Your task to perform on an android device: install app "Microsoft Excel" Image 0: 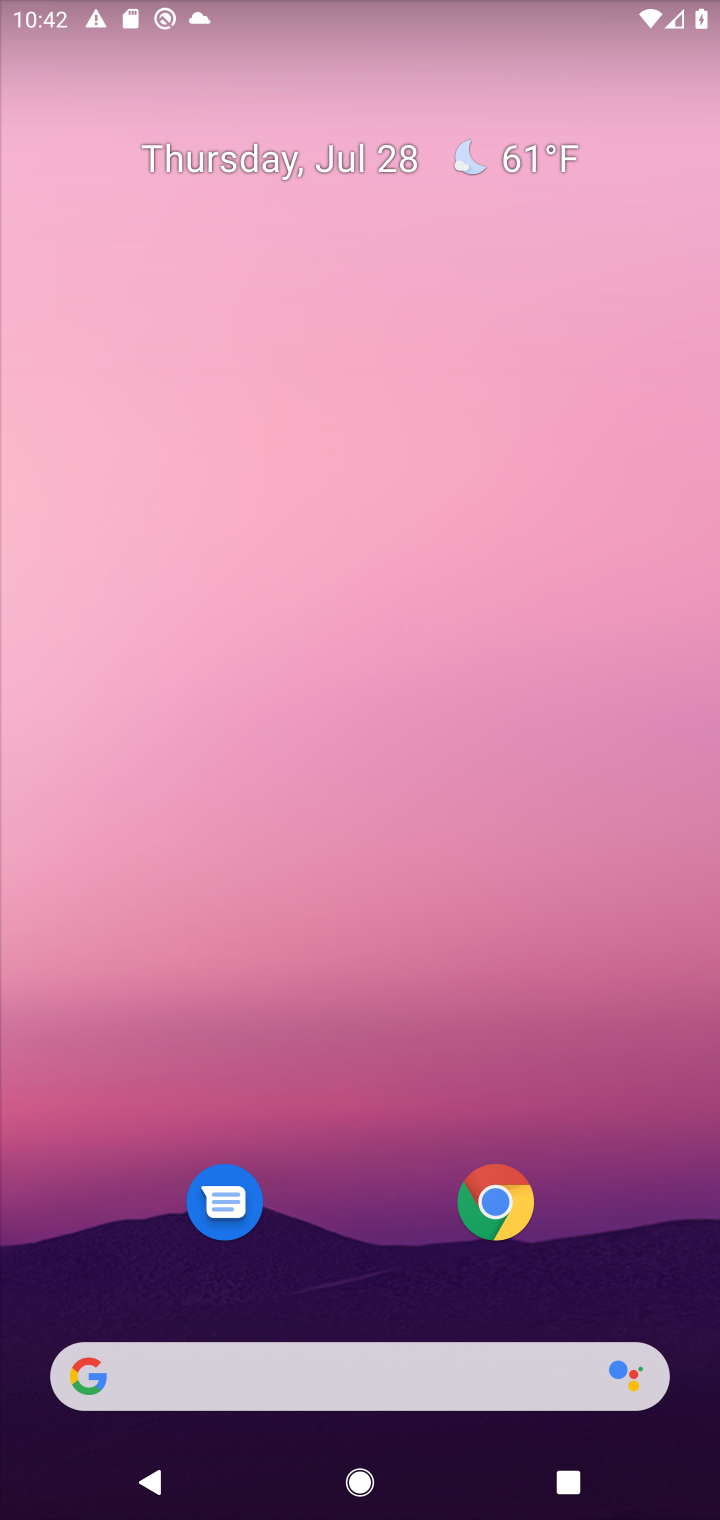
Step 0: click (365, 1367)
Your task to perform on an android device: install app "Microsoft Excel" Image 1: 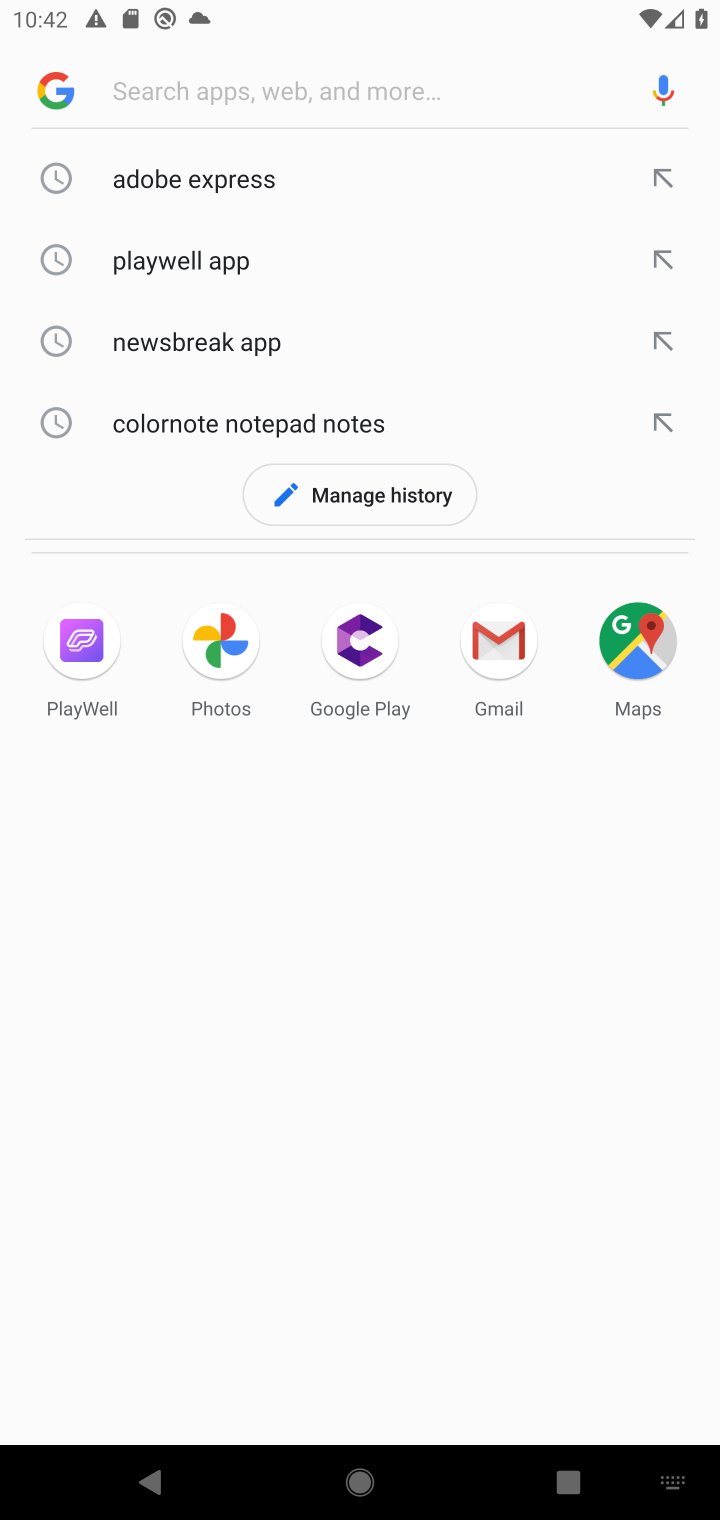
Step 1: type "micro"
Your task to perform on an android device: install app "Microsoft Excel" Image 2: 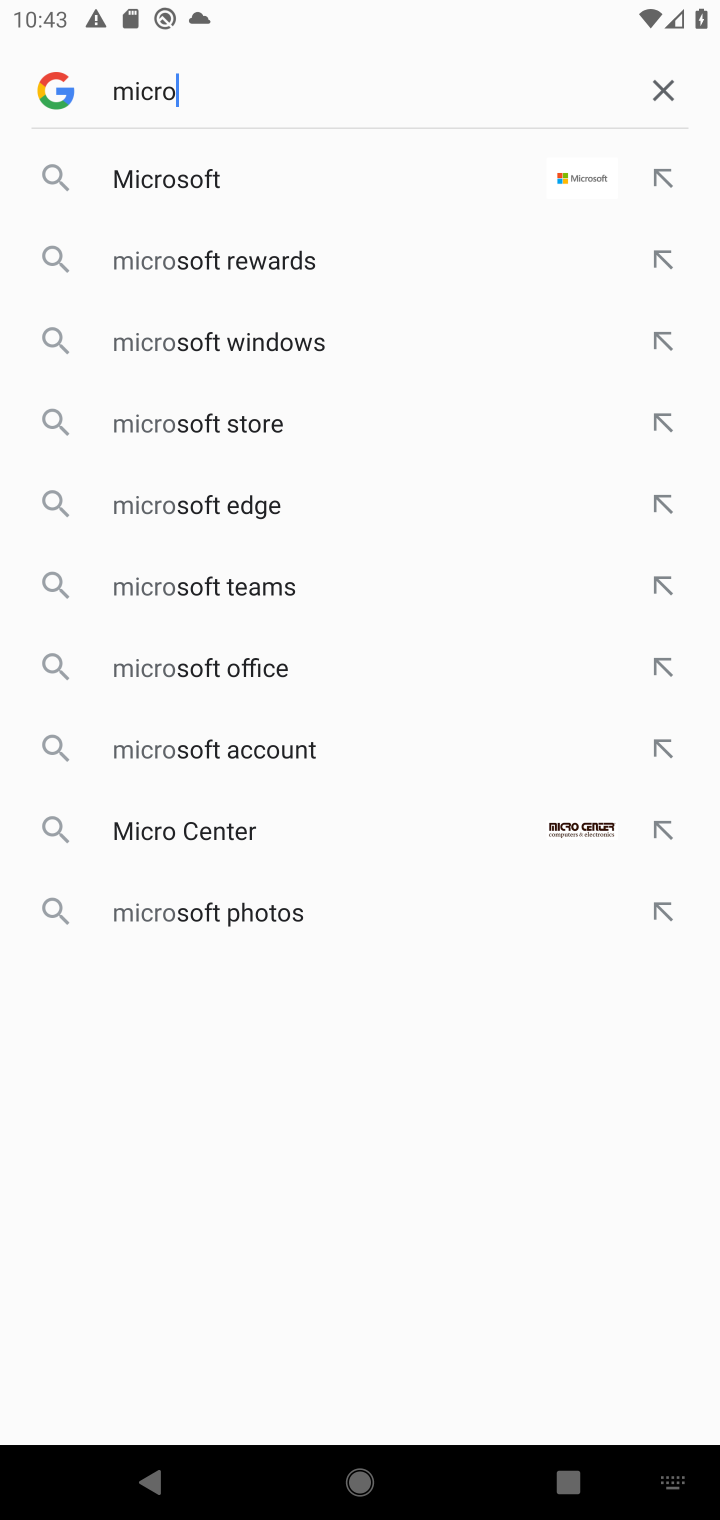
Step 2: type " excel"
Your task to perform on an android device: install app "Microsoft Excel" Image 3: 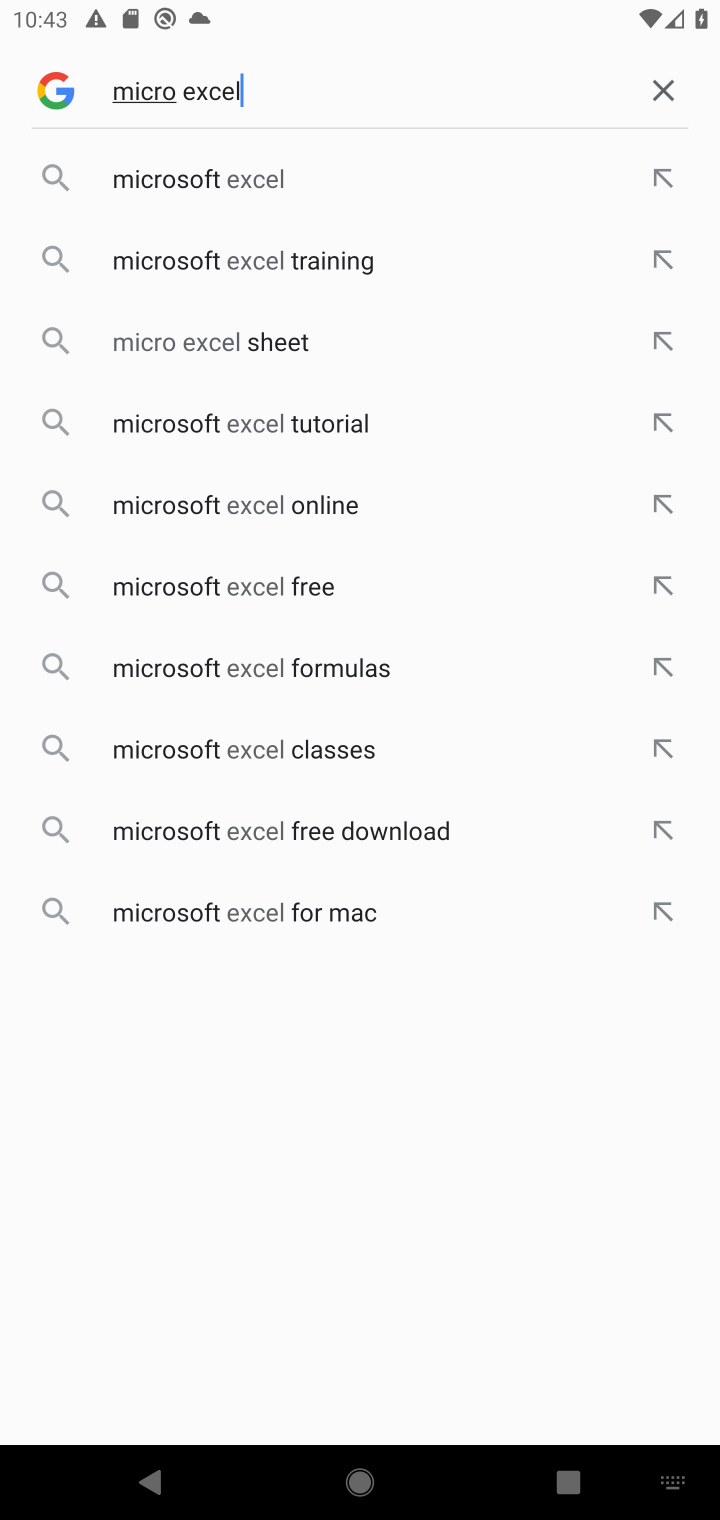
Step 3: click (369, 182)
Your task to perform on an android device: install app "Microsoft Excel" Image 4: 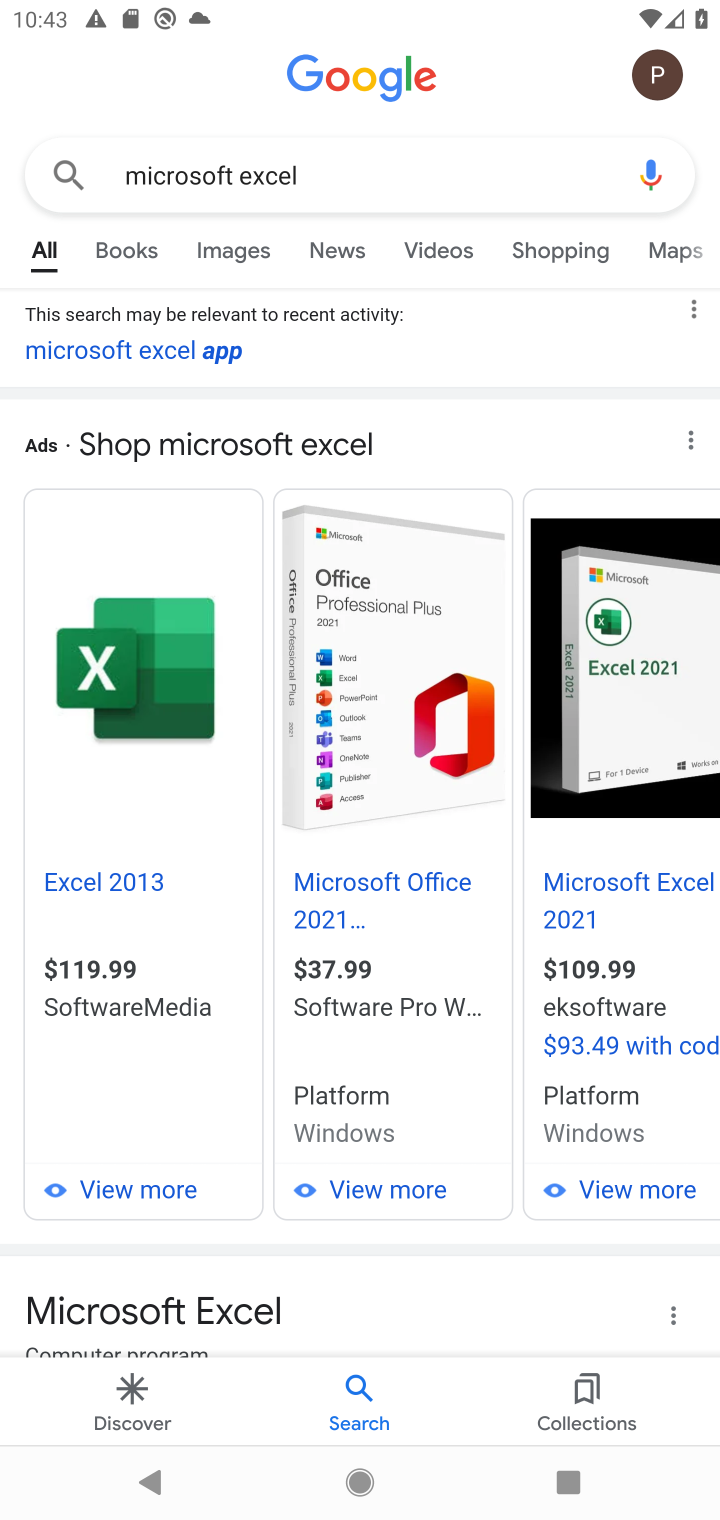
Step 4: drag from (157, 1145) to (142, 238)
Your task to perform on an android device: install app "Microsoft Excel" Image 5: 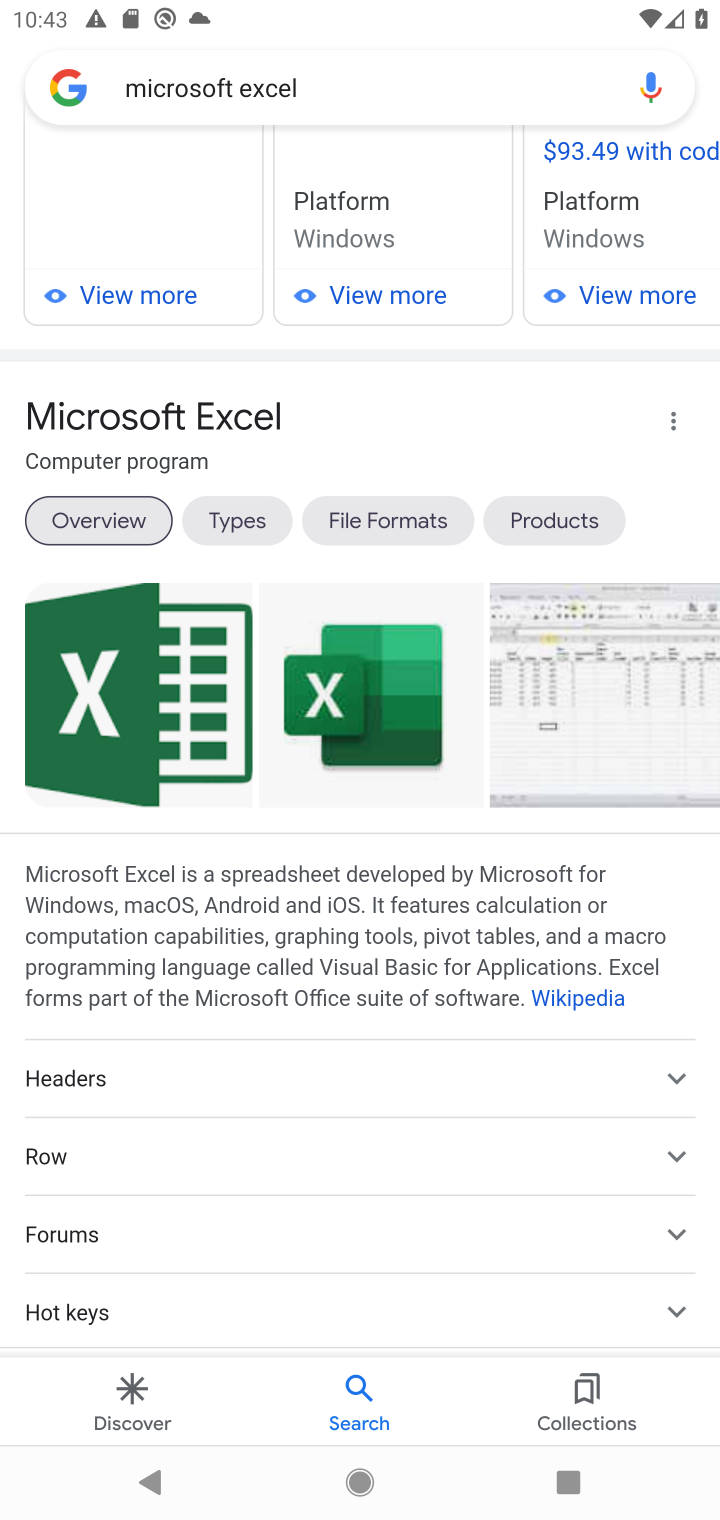
Step 5: drag from (396, 1157) to (401, 101)
Your task to perform on an android device: install app "Microsoft Excel" Image 6: 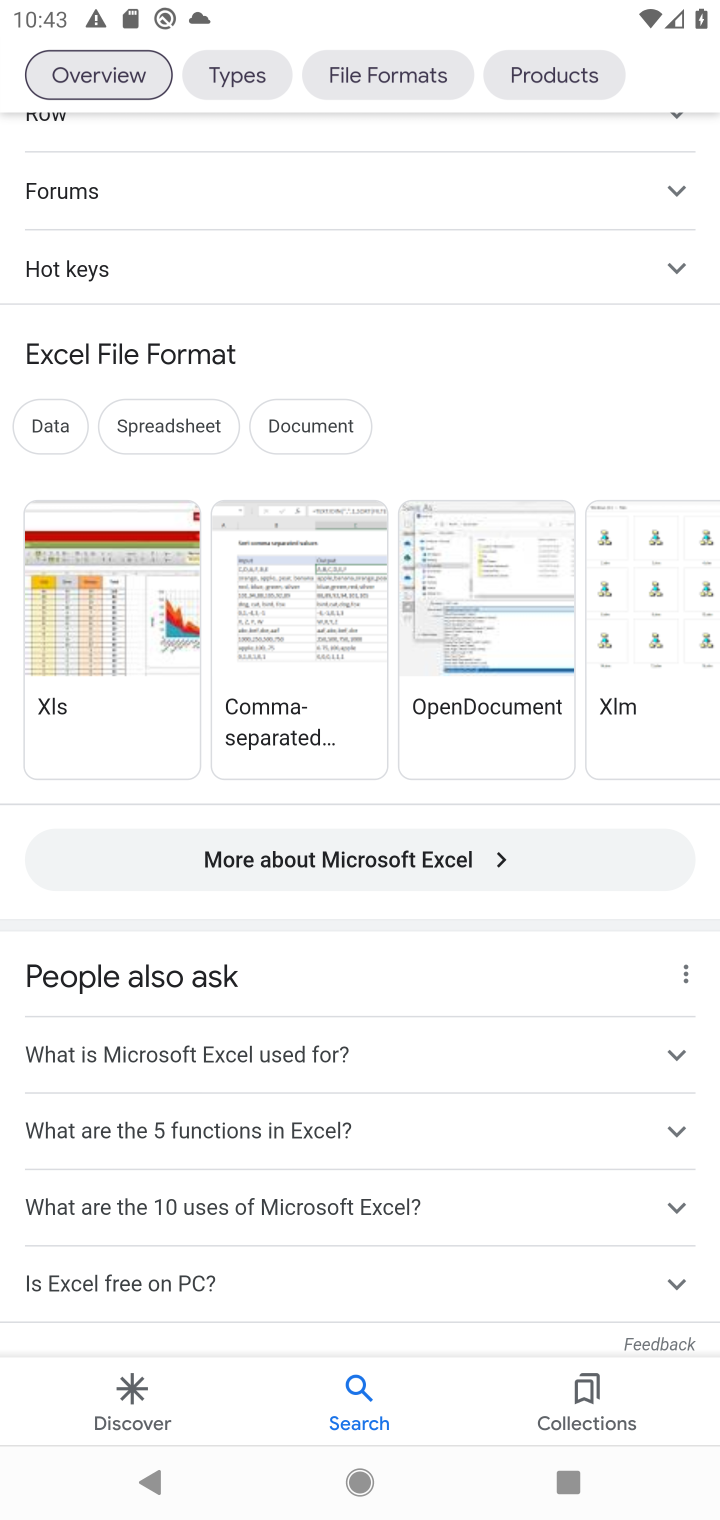
Step 6: drag from (408, 1160) to (402, 356)
Your task to perform on an android device: install app "Microsoft Excel" Image 7: 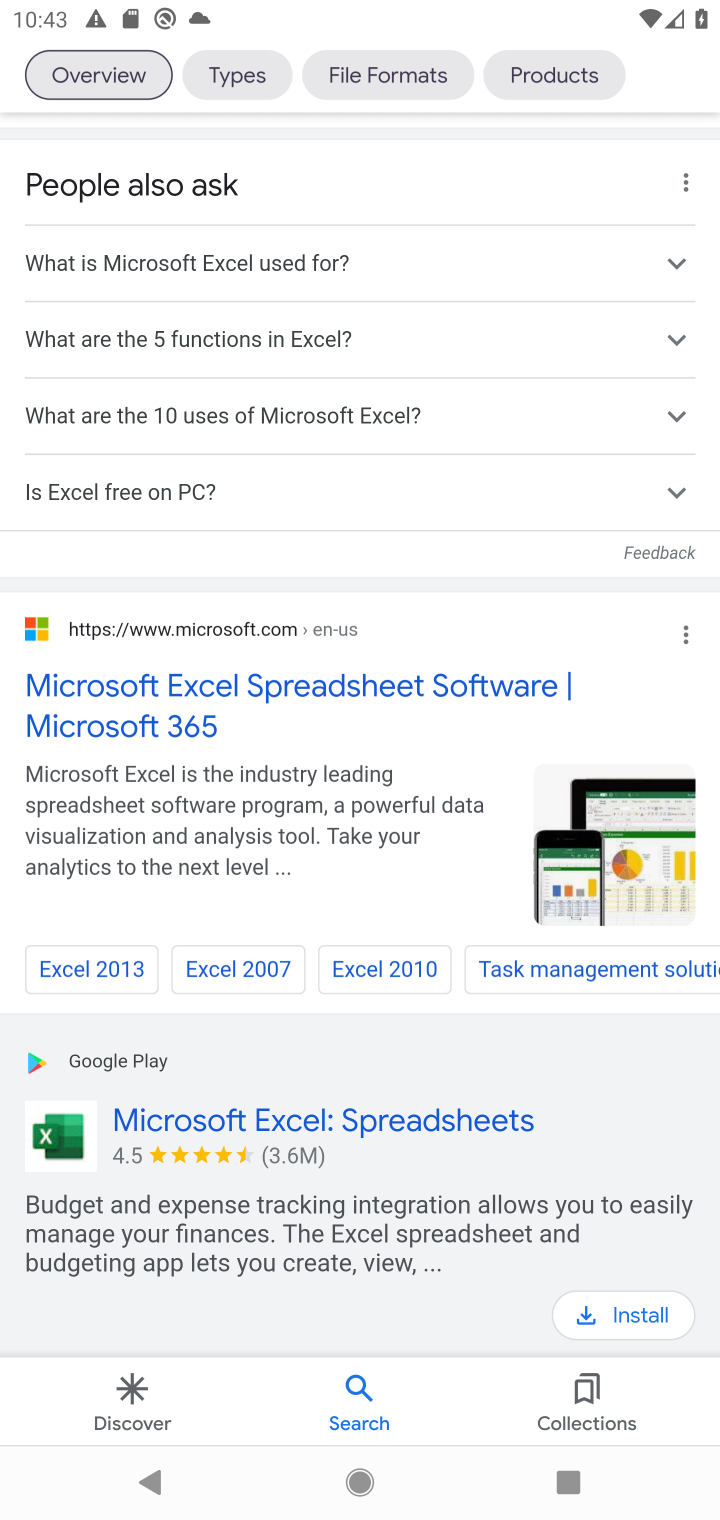
Step 7: click (595, 1297)
Your task to perform on an android device: install app "Microsoft Excel" Image 8: 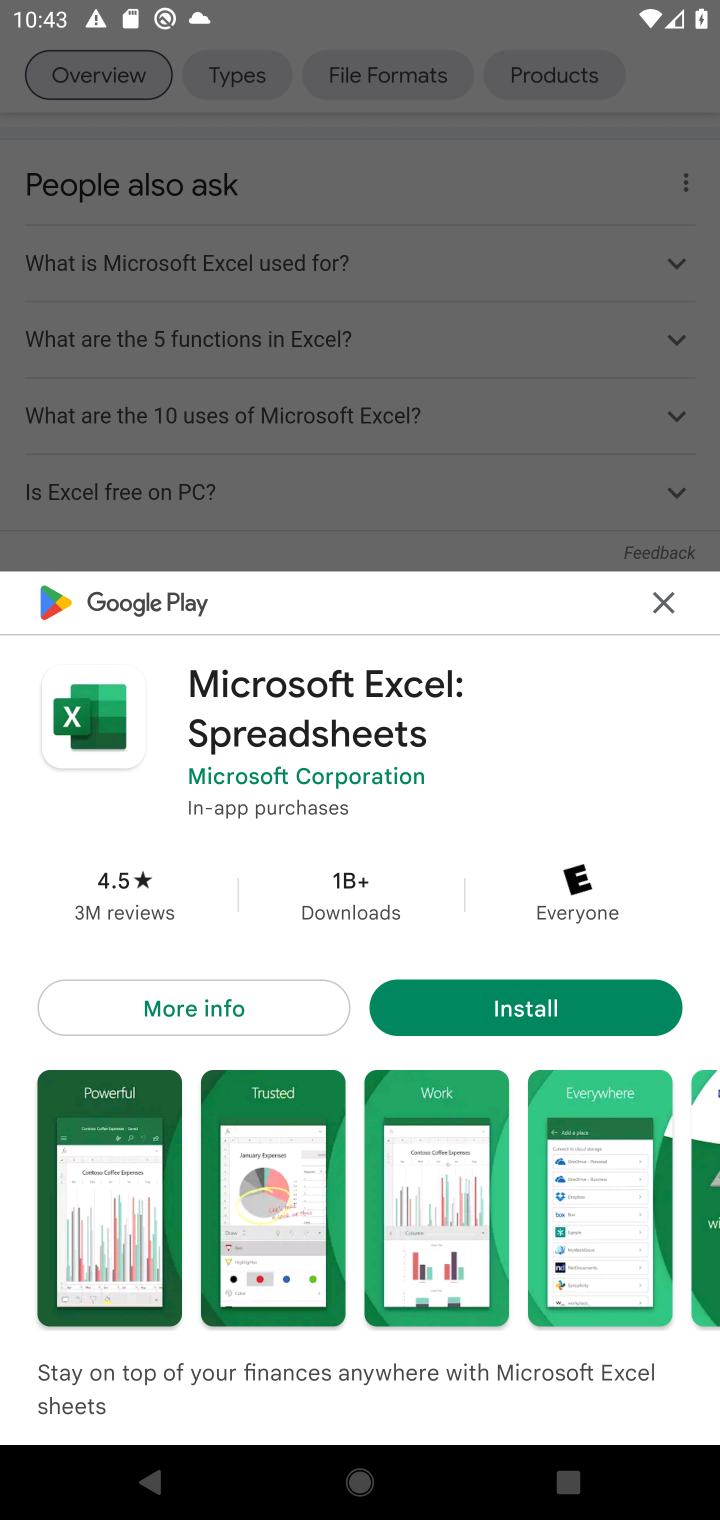
Step 8: click (545, 990)
Your task to perform on an android device: install app "Microsoft Excel" Image 9: 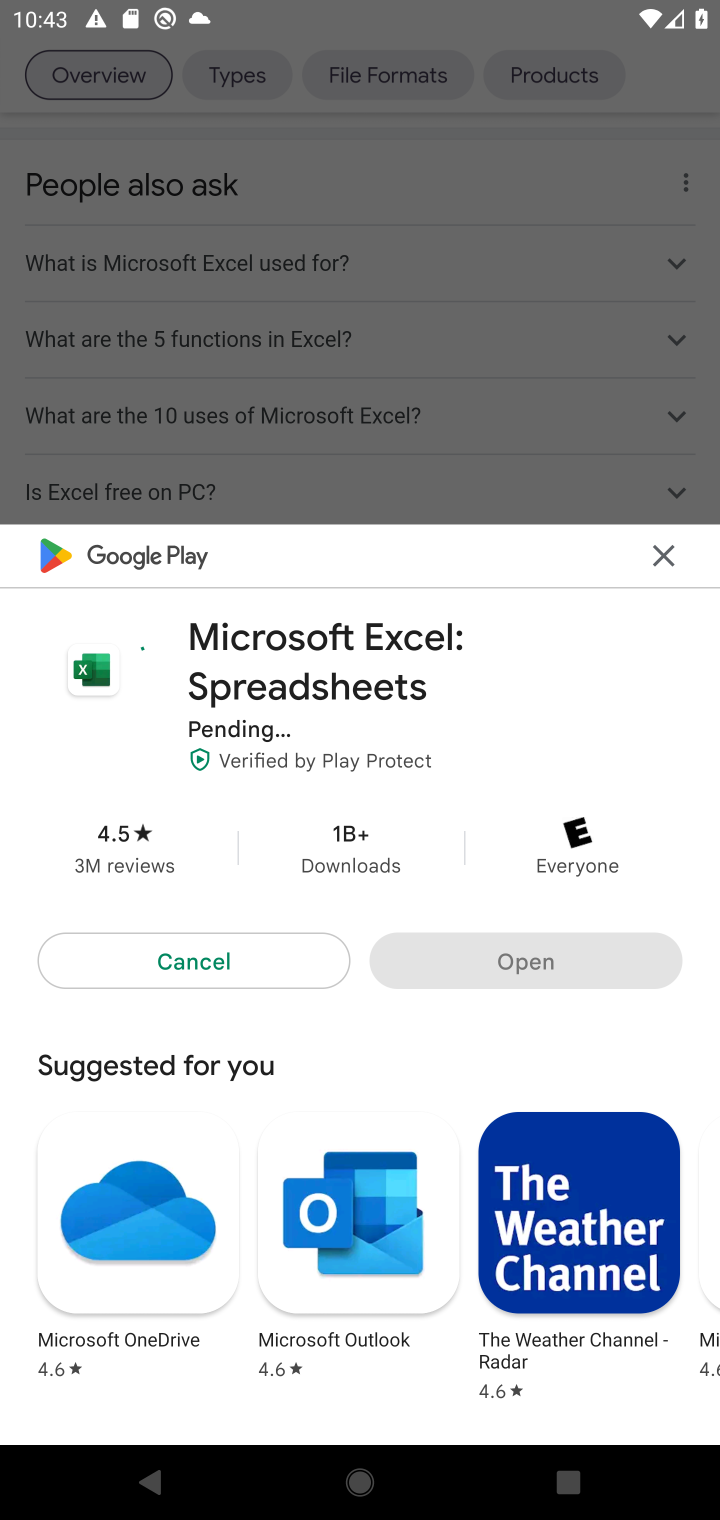
Step 9: task complete